Your task to perform on an android device: Open wifi settings Image 0: 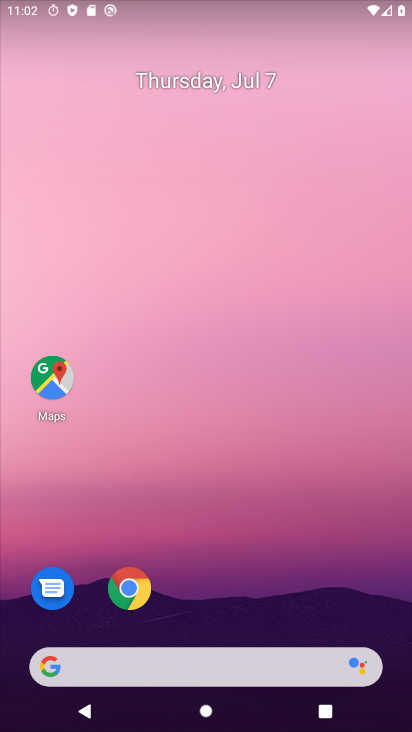
Step 0: drag from (268, 591) to (248, 38)
Your task to perform on an android device: Open wifi settings Image 1: 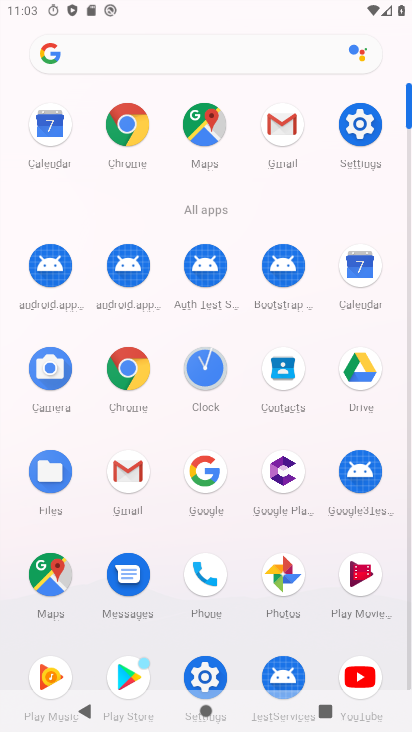
Step 1: click (365, 123)
Your task to perform on an android device: Open wifi settings Image 2: 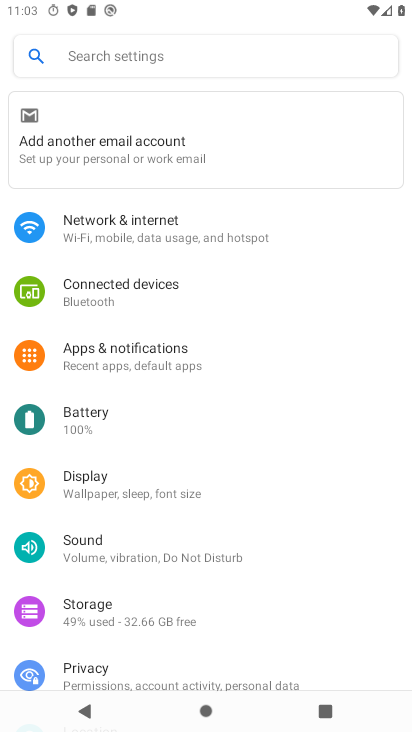
Step 2: click (176, 230)
Your task to perform on an android device: Open wifi settings Image 3: 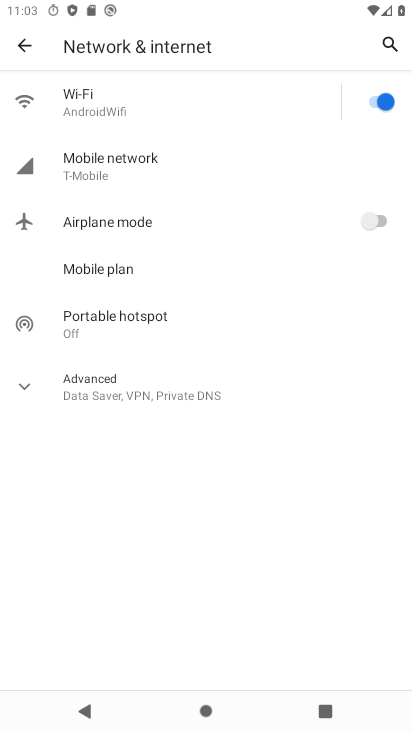
Step 3: click (141, 102)
Your task to perform on an android device: Open wifi settings Image 4: 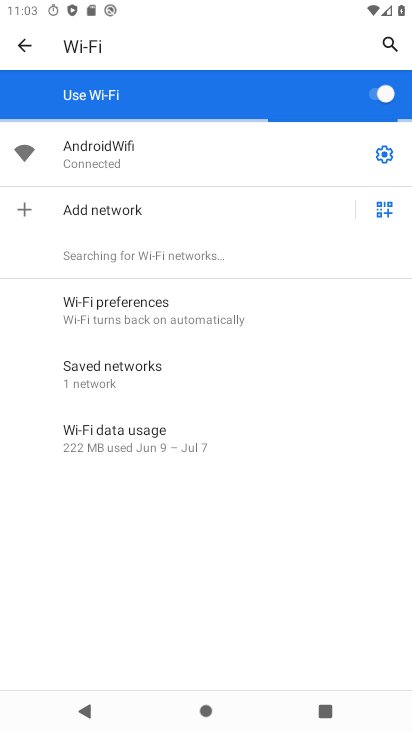
Step 4: click (387, 153)
Your task to perform on an android device: Open wifi settings Image 5: 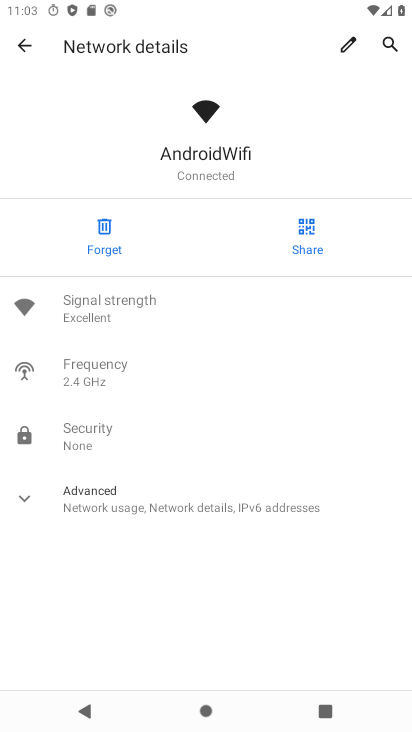
Step 5: task complete